Your task to perform on an android device: turn pop-ups off in chrome Image 0: 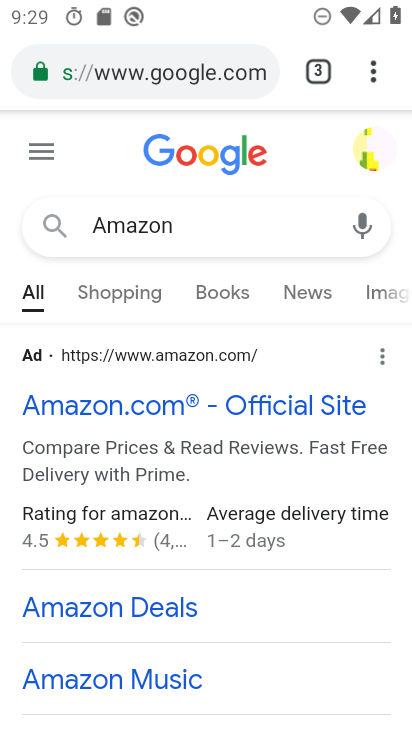
Step 0: press home button
Your task to perform on an android device: turn pop-ups off in chrome Image 1: 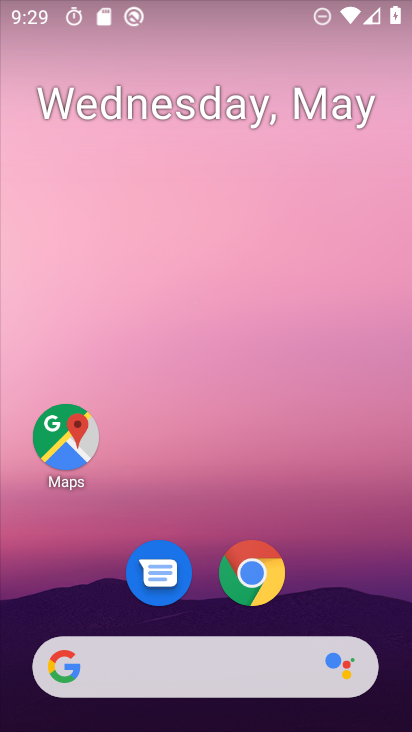
Step 1: click (261, 579)
Your task to perform on an android device: turn pop-ups off in chrome Image 2: 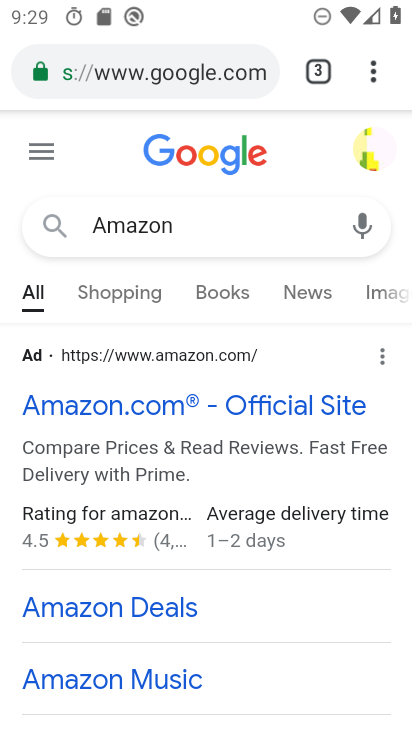
Step 2: click (378, 66)
Your task to perform on an android device: turn pop-ups off in chrome Image 3: 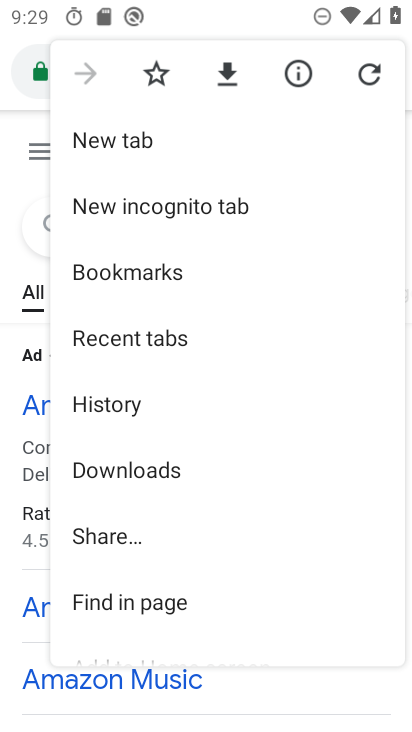
Step 3: drag from (304, 600) to (285, 193)
Your task to perform on an android device: turn pop-ups off in chrome Image 4: 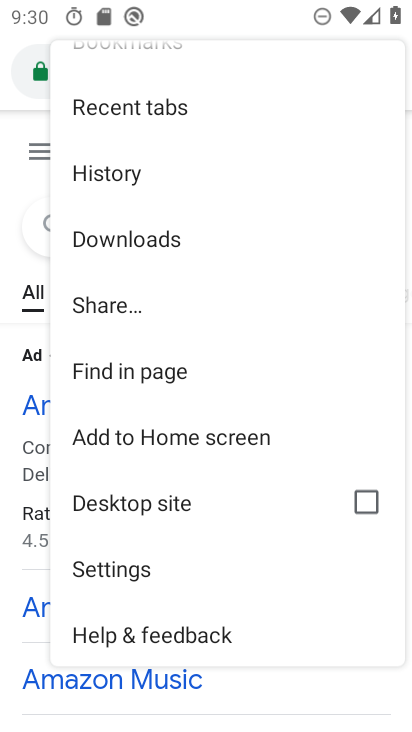
Step 4: click (103, 563)
Your task to perform on an android device: turn pop-ups off in chrome Image 5: 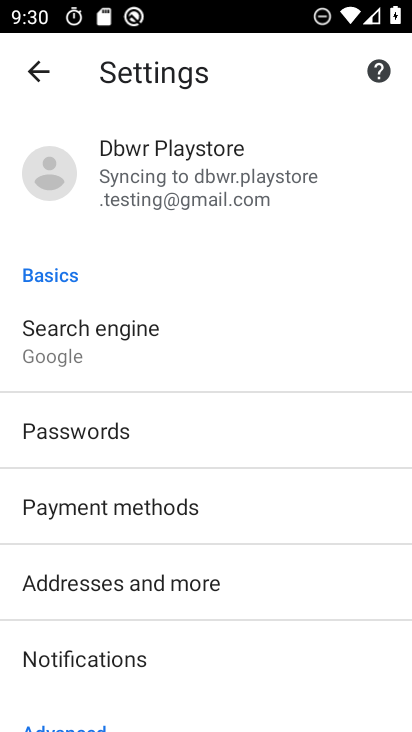
Step 5: drag from (255, 676) to (248, 267)
Your task to perform on an android device: turn pop-ups off in chrome Image 6: 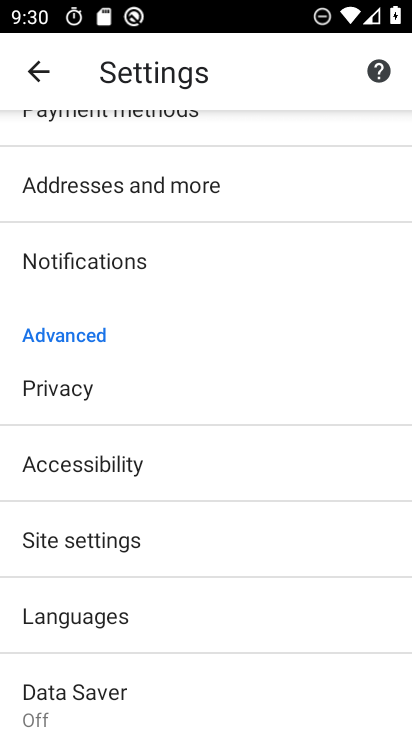
Step 6: click (128, 541)
Your task to perform on an android device: turn pop-ups off in chrome Image 7: 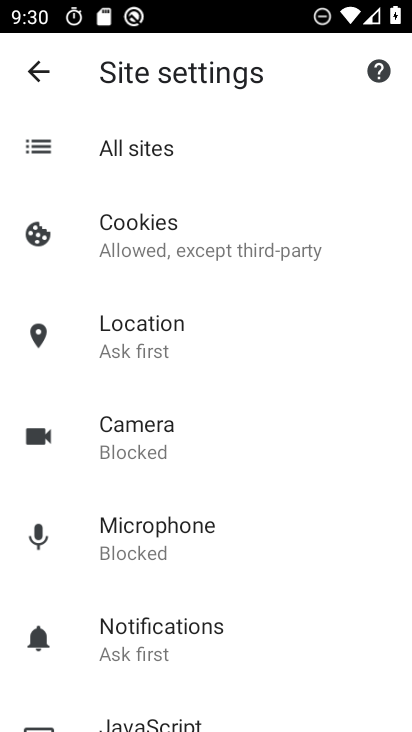
Step 7: drag from (286, 674) to (261, 375)
Your task to perform on an android device: turn pop-ups off in chrome Image 8: 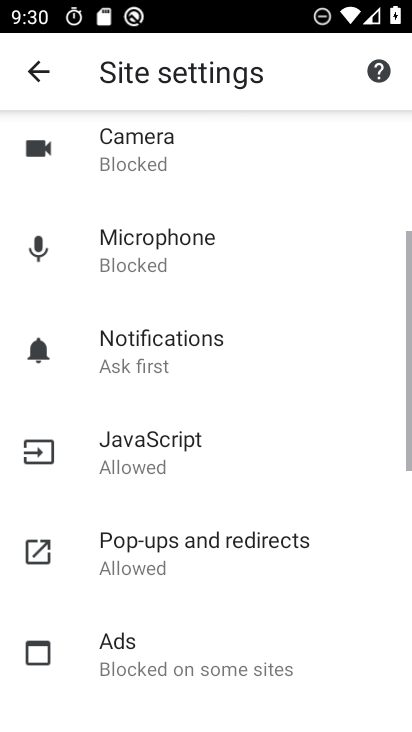
Step 8: click (106, 556)
Your task to perform on an android device: turn pop-ups off in chrome Image 9: 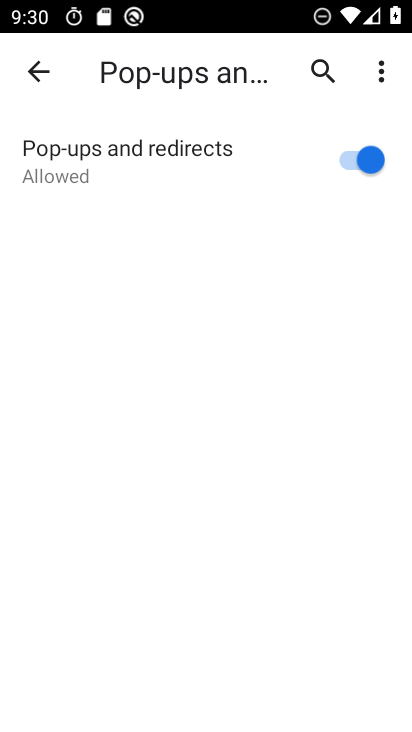
Step 9: click (348, 158)
Your task to perform on an android device: turn pop-ups off in chrome Image 10: 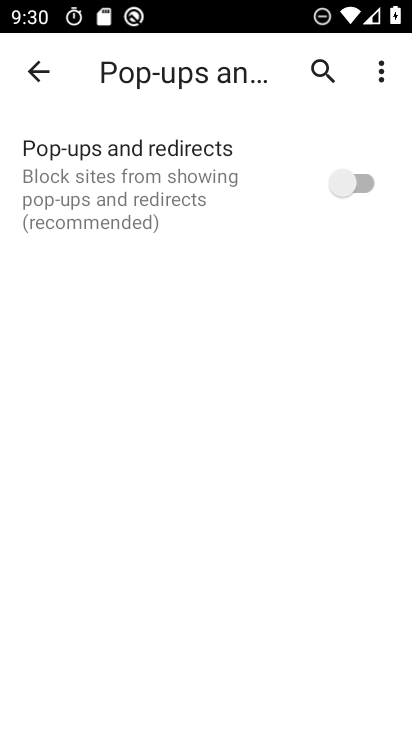
Step 10: task complete